Your task to perform on an android device: Open location settings Image 0: 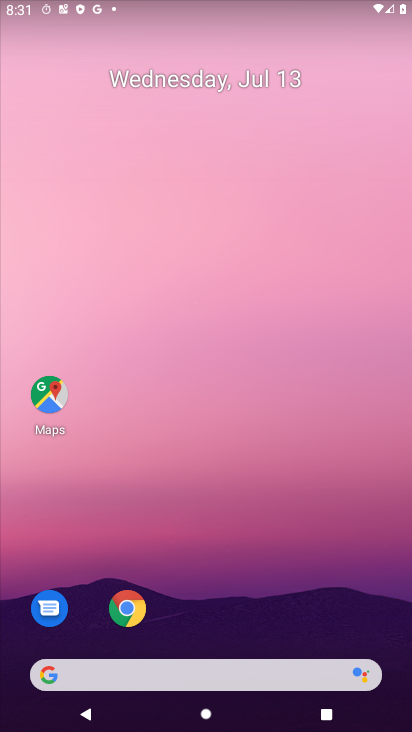
Step 0: drag from (223, 633) to (166, 1)
Your task to perform on an android device: Open location settings Image 1: 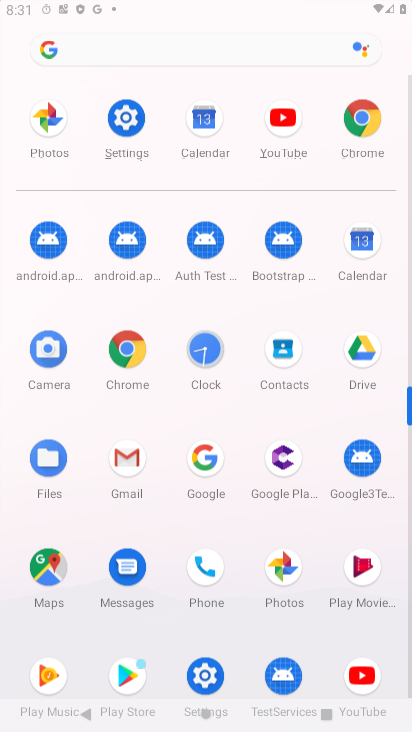
Step 1: drag from (188, 214) to (141, 76)
Your task to perform on an android device: Open location settings Image 2: 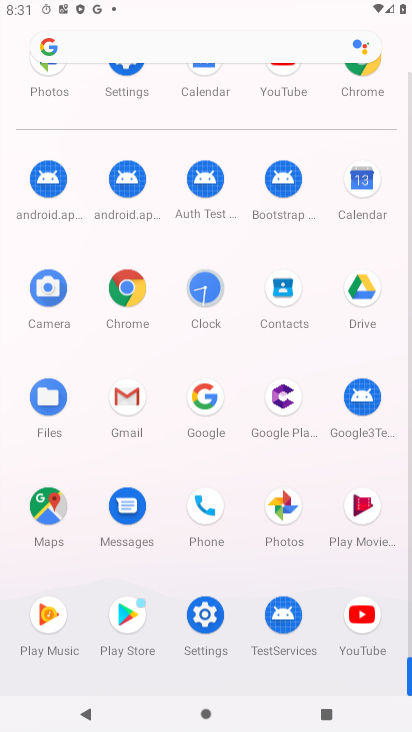
Step 2: drag from (156, 318) to (126, 99)
Your task to perform on an android device: Open location settings Image 3: 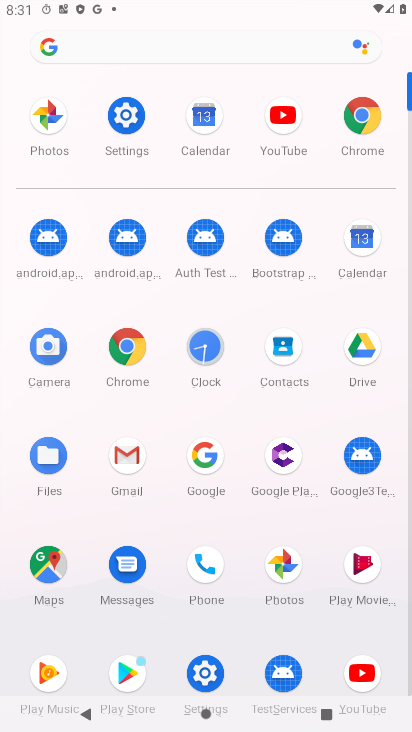
Step 3: click (211, 663)
Your task to perform on an android device: Open location settings Image 4: 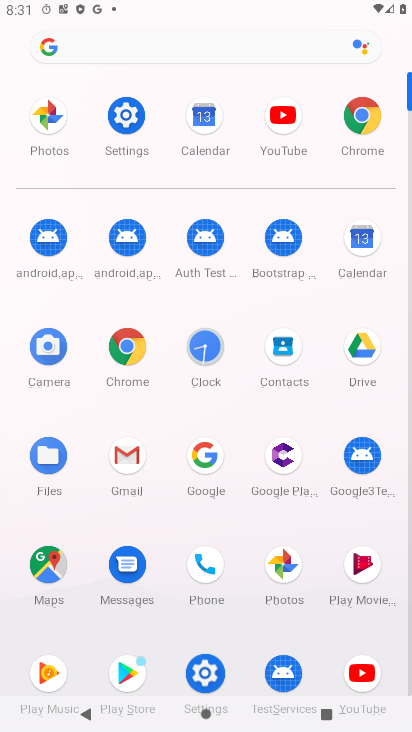
Step 4: click (208, 666)
Your task to perform on an android device: Open location settings Image 5: 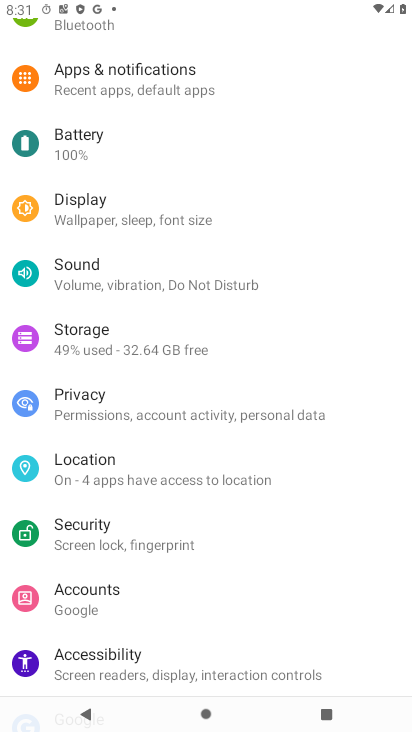
Step 5: click (206, 669)
Your task to perform on an android device: Open location settings Image 6: 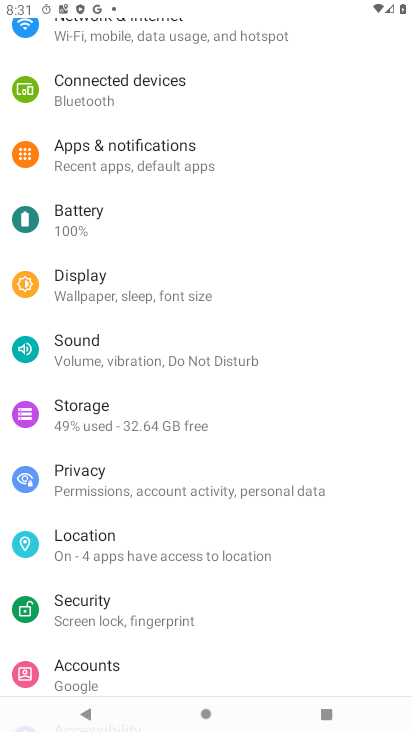
Step 6: click (97, 553)
Your task to perform on an android device: Open location settings Image 7: 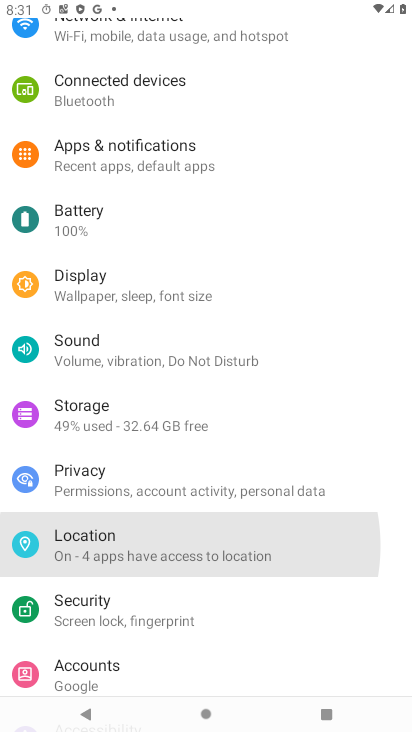
Step 7: click (98, 544)
Your task to perform on an android device: Open location settings Image 8: 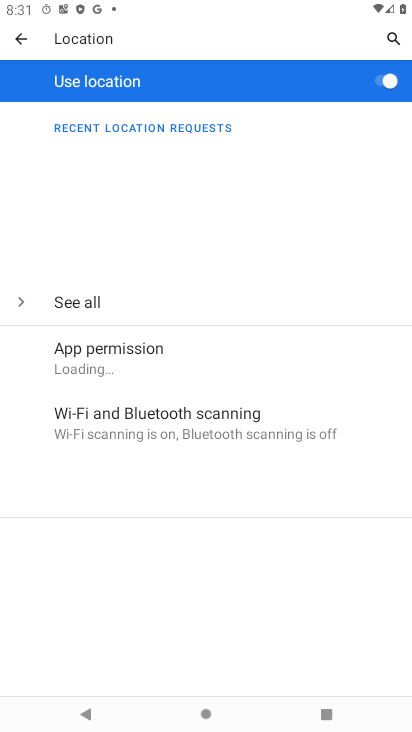
Step 8: click (110, 540)
Your task to perform on an android device: Open location settings Image 9: 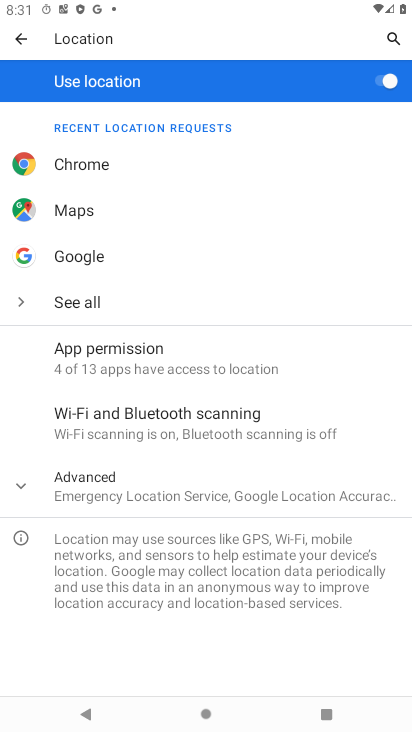
Step 9: click (108, 495)
Your task to perform on an android device: Open location settings Image 10: 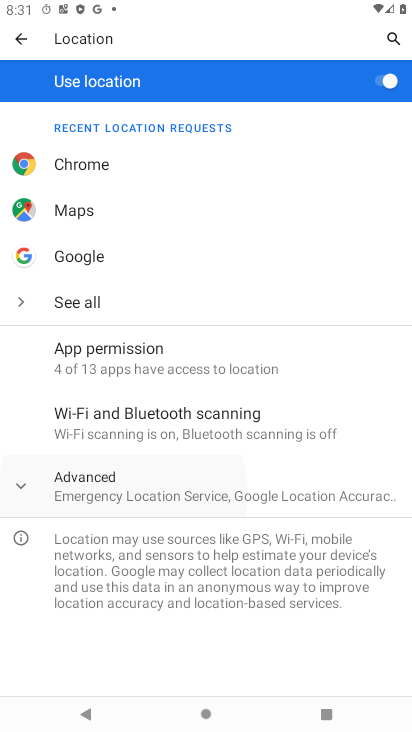
Step 10: click (108, 495)
Your task to perform on an android device: Open location settings Image 11: 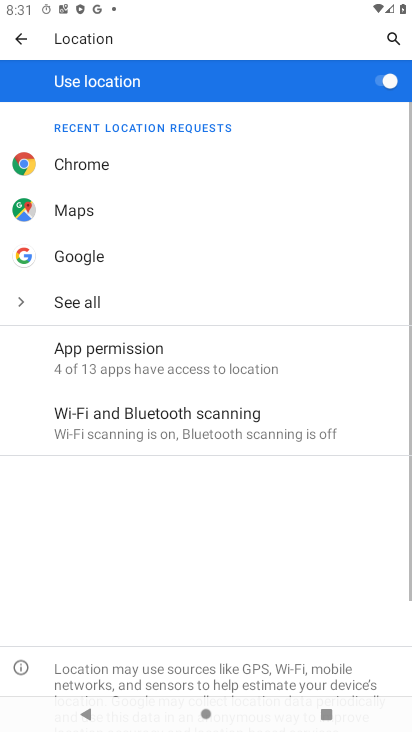
Step 11: click (107, 496)
Your task to perform on an android device: Open location settings Image 12: 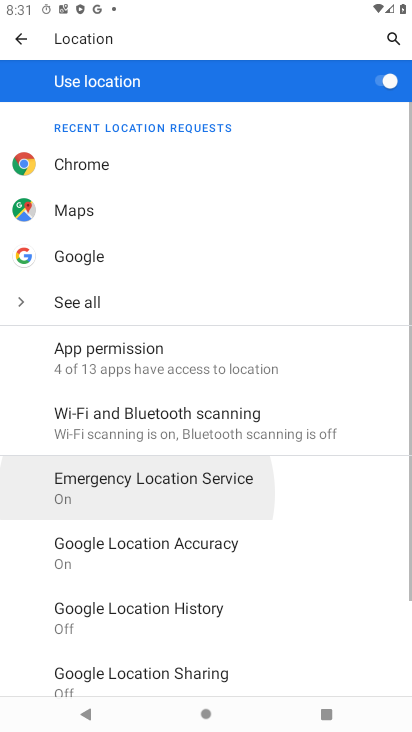
Step 12: click (107, 496)
Your task to perform on an android device: Open location settings Image 13: 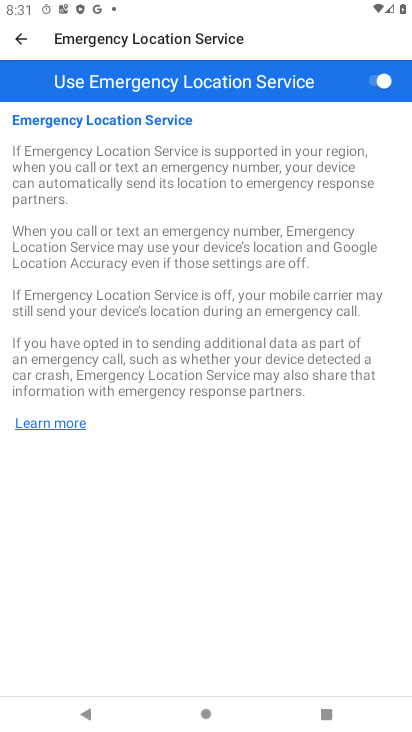
Step 13: click (15, 38)
Your task to perform on an android device: Open location settings Image 14: 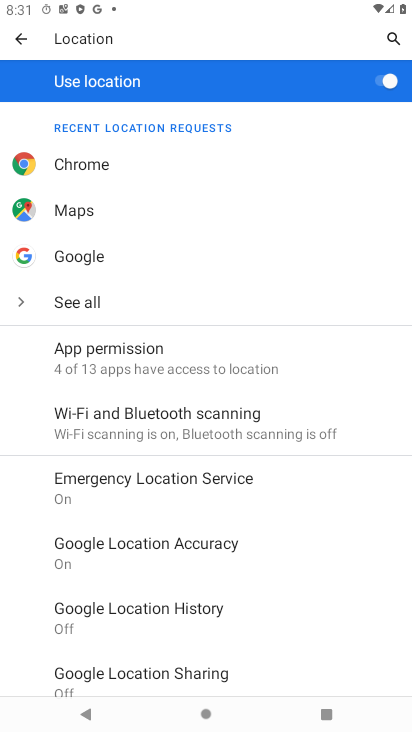
Step 14: task complete